Your task to perform on an android device: toggle notifications settings in the gmail app Image 0: 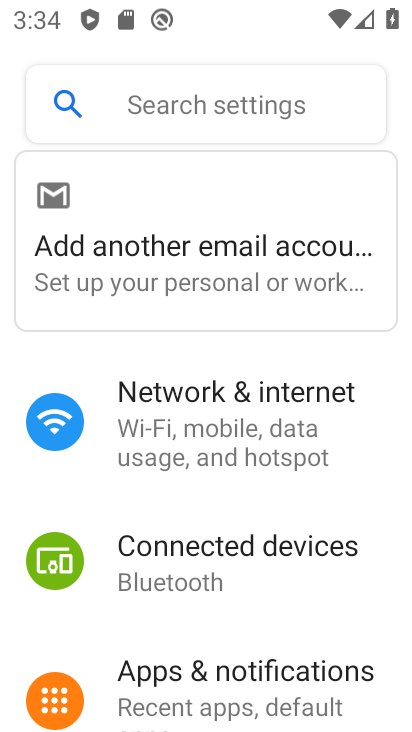
Step 0: drag from (253, 487) to (254, 216)
Your task to perform on an android device: toggle notifications settings in the gmail app Image 1: 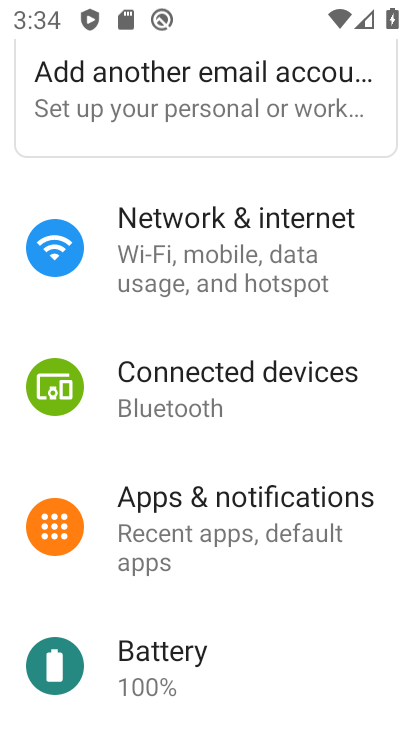
Step 1: press home button
Your task to perform on an android device: toggle notifications settings in the gmail app Image 2: 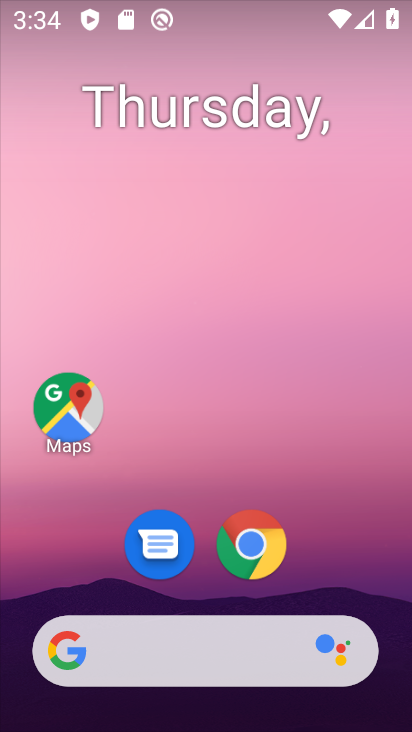
Step 2: drag from (330, 567) to (408, 21)
Your task to perform on an android device: toggle notifications settings in the gmail app Image 3: 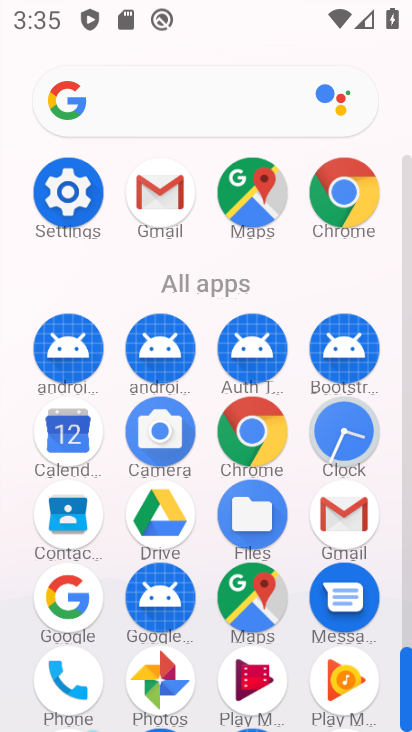
Step 3: click (337, 516)
Your task to perform on an android device: toggle notifications settings in the gmail app Image 4: 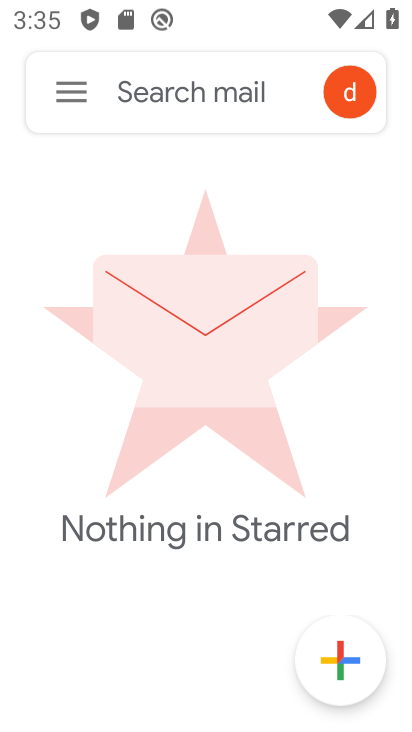
Step 4: click (69, 89)
Your task to perform on an android device: toggle notifications settings in the gmail app Image 5: 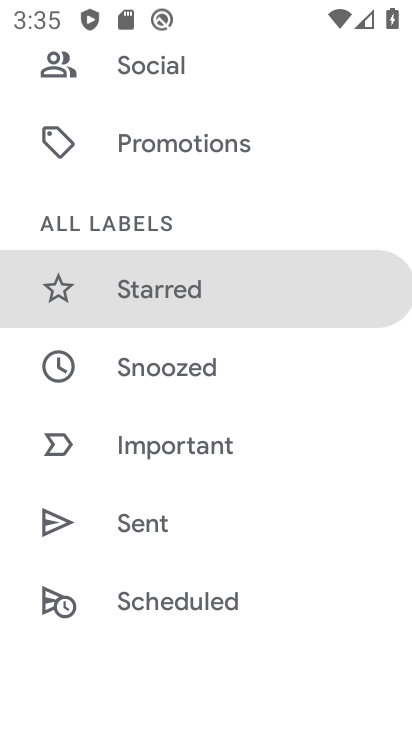
Step 5: drag from (184, 516) to (201, 74)
Your task to perform on an android device: toggle notifications settings in the gmail app Image 6: 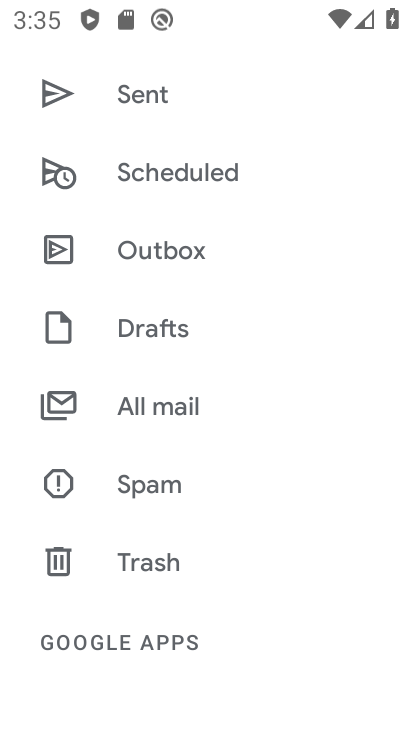
Step 6: drag from (120, 660) to (178, 125)
Your task to perform on an android device: toggle notifications settings in the gmail app Image 7: 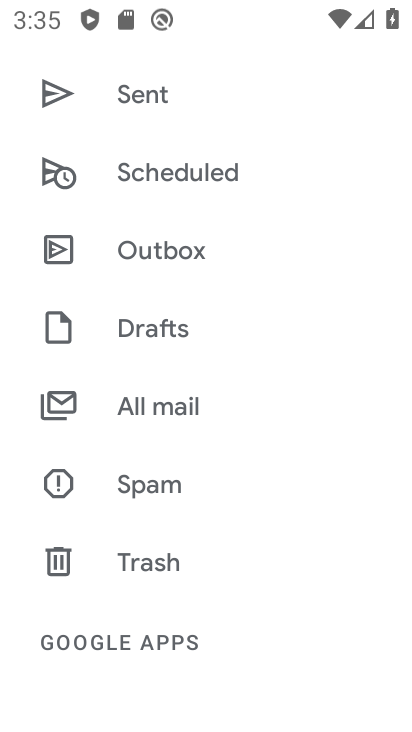
Step 7: drag from (151, 426) to (152, 57)
Your task to perform on an android device: toggle notifications settings in the gmail app Image 8: 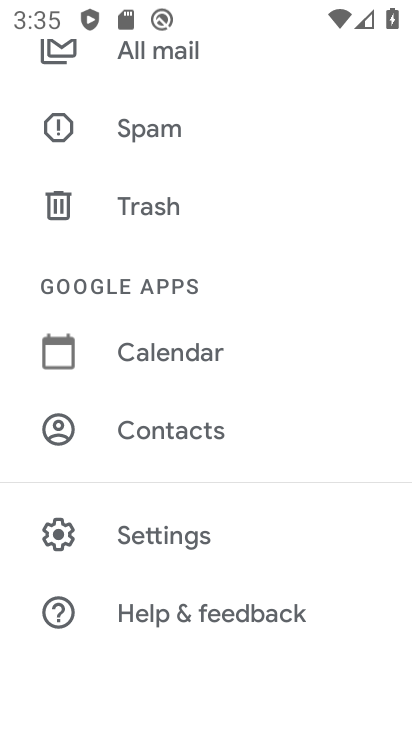
Step 8: click (168, 530)
Your task to perform on an android device: toggle notifications settings in the gmail app Image 9: 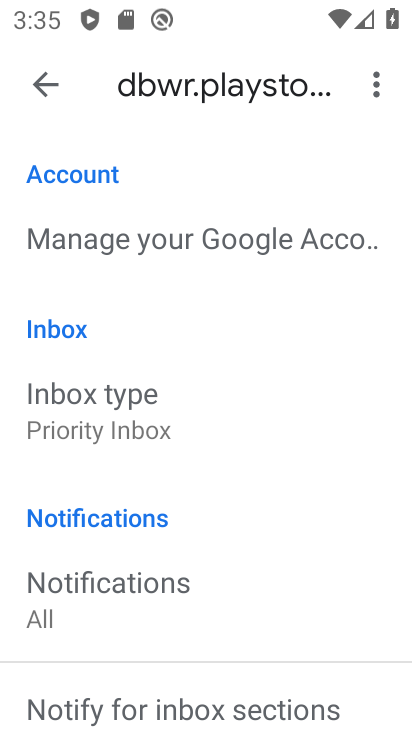
Step 9: click (141, 609)
Your task to perform on an android device: toggle notifications settings in the gmail app Image 10: 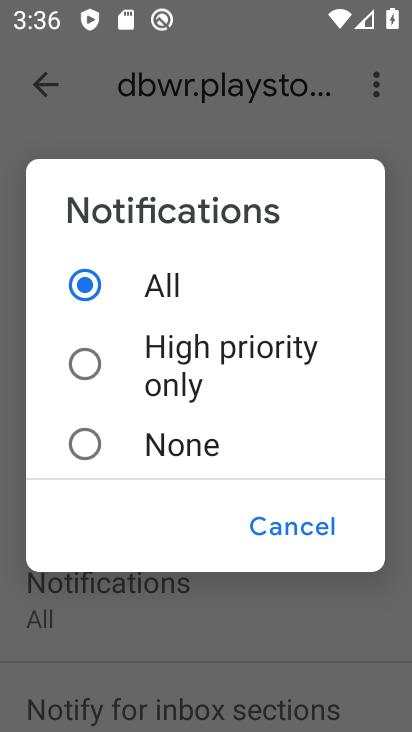
Step 10: click (72, 435)
Your task to perform on an android device: toggle notifications settings in the gmail app Image 11: 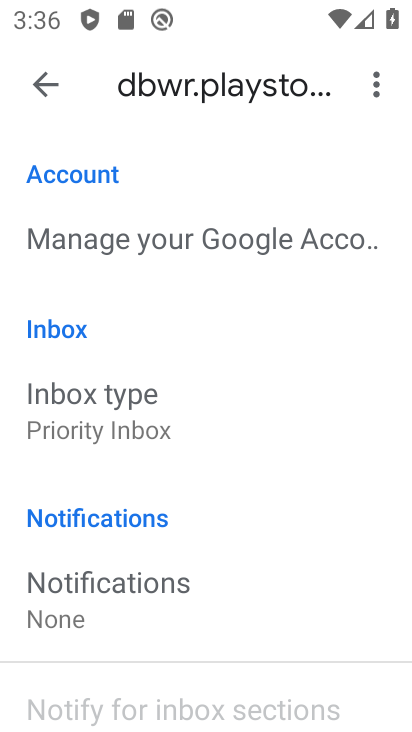
Step 11: task complete